Your task to perform on an android device: Go to Reddit.com Image 0: 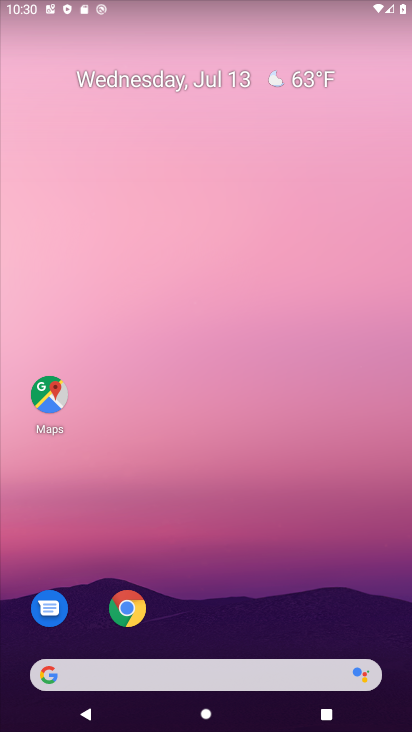
Step 0: press home button
Your task to perform on an android device: Go to Reddit.com Image 1: 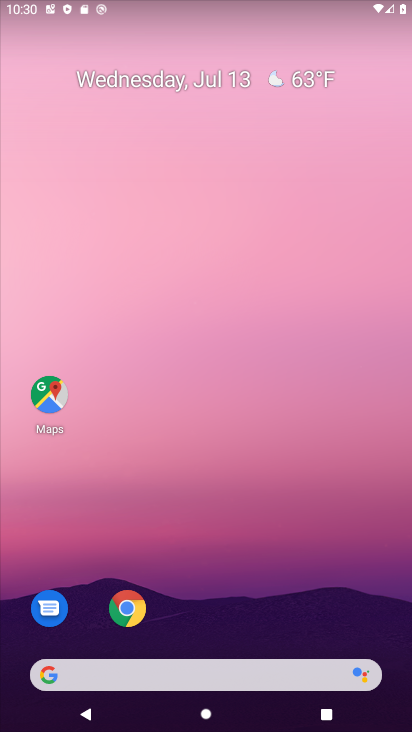
Step 1: click (46, 670)
Your task to perform on an android device: Go to Reddit.com Image 2: 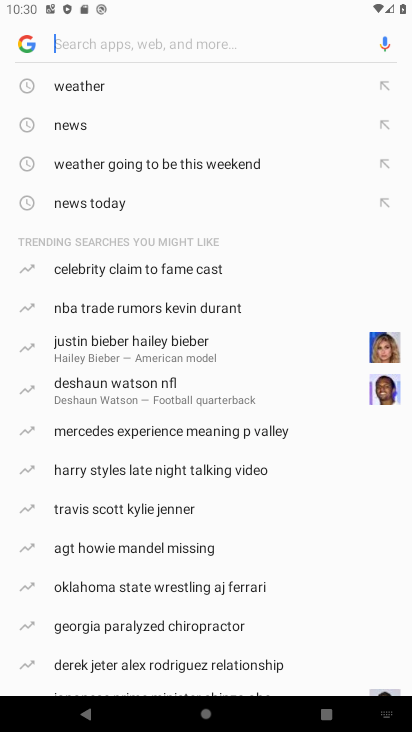
Step 2: type " Reddit.com"
Your task to perform on an android device: Go to Reddit.com Image 3: 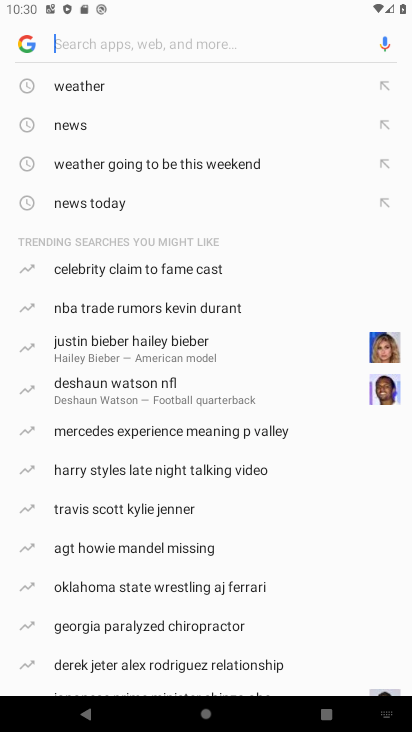
Step 3: click (63, 43)
Your task to perform on an android device: Go to Reddit.com Image 4: 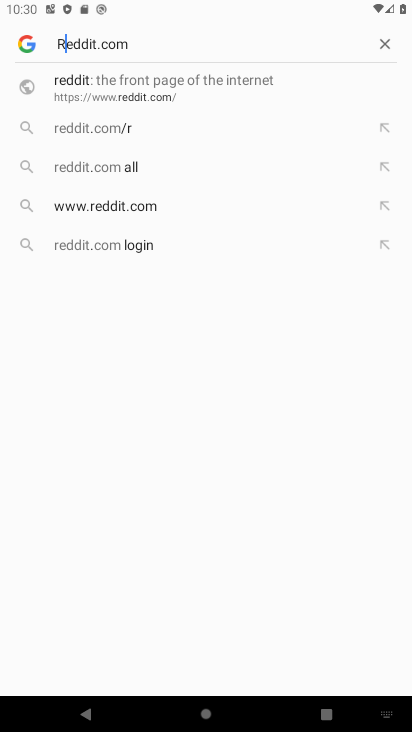
Step 4: click (120, 202)
Your task to perform on an android device: Go to Reddit.com Image 5: 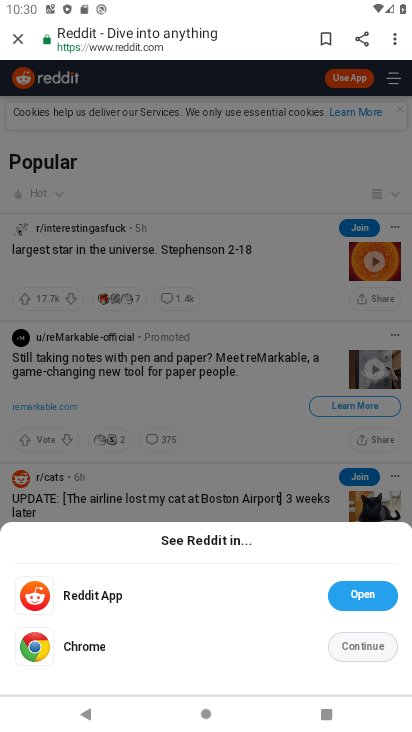
Step 5: task complete